Your task to perform on an android device: Go to Reddit.com Image 0: 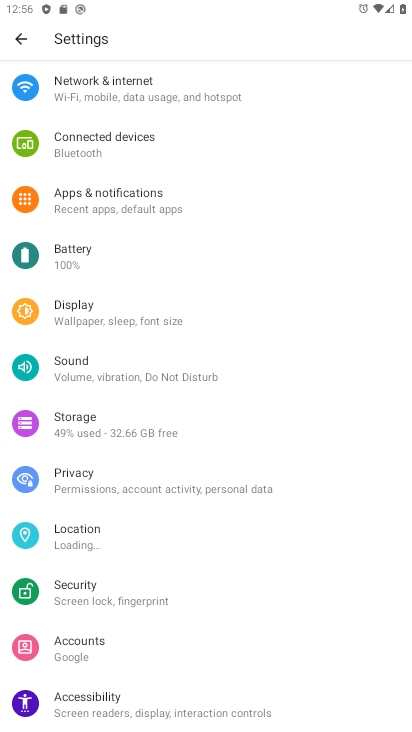
Step 0: press home button
Your task to perform on an android device: Go to Reddit.com Image 1: 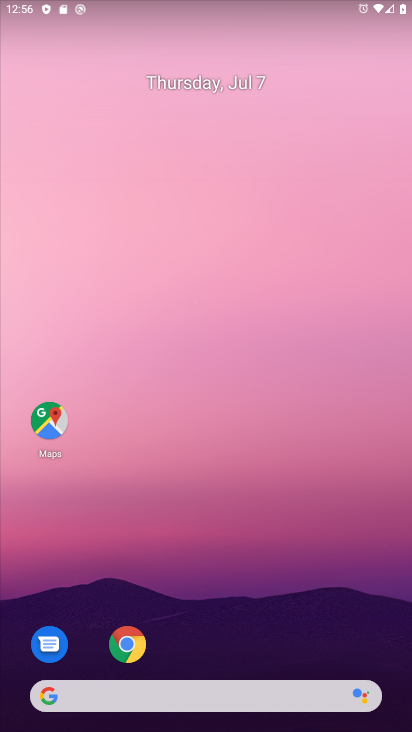
Step 1: click (112, 686)
Your task to perform on an android device: Go to Reddit.com Image 2: 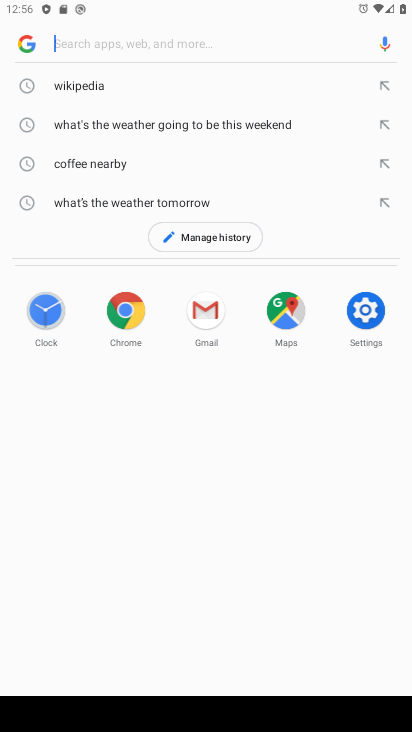
Step 2: type "Reddit.com"
Your task to perform on an android device: Go to Reddit.com Image 3: 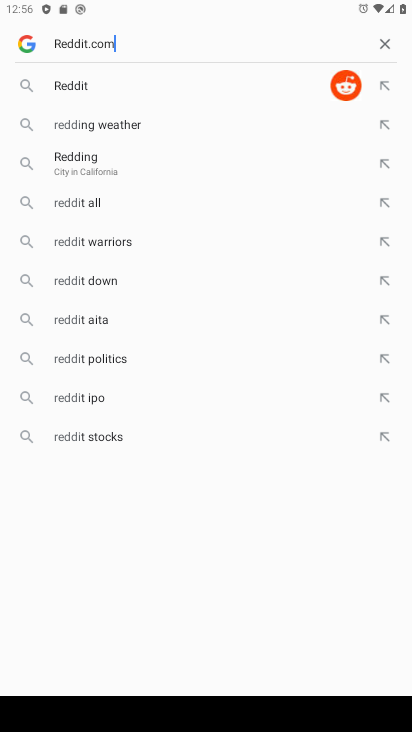
Step 3: type ""
Your task to perform on an android device: Go to Reddit.com Image 4: 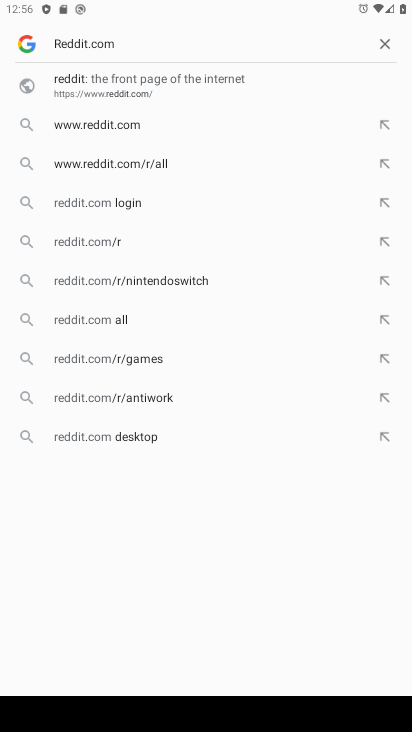
Step 4: type "  "
Your task to perform on an android device: Go to Reddit.com Image 5: 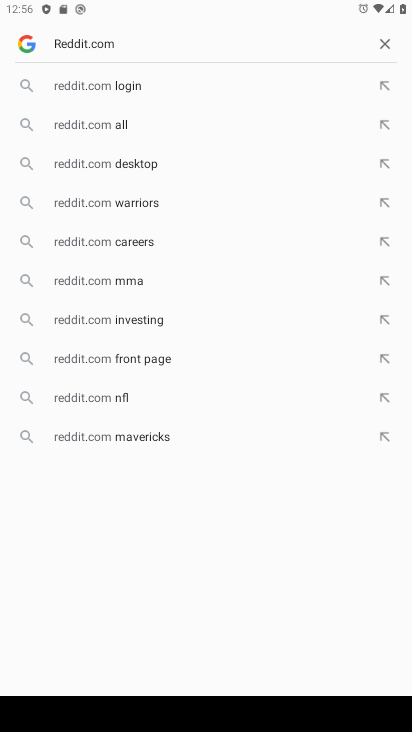
Step 5: type "  "
Your task to perform on an android device: Go to Reddit.com Image 6: 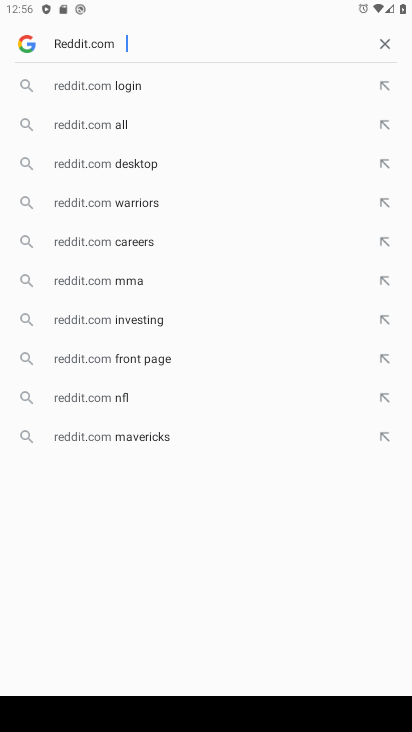
Step 6: type " "
Your task to perform on an android device: Go to Reddit.com Image 7: 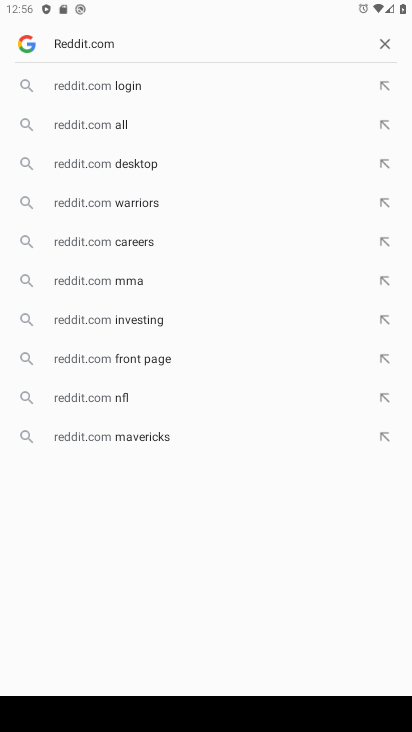
Step 7: type ""
Your task to perform on an android device: Go to Reddit.com Image 8: 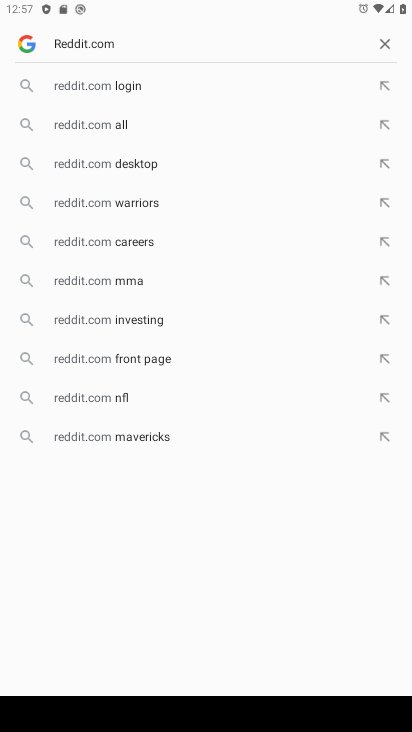
Step 8: type ""
Your task to perform on an android device: Go to Reddit.com Image 9: 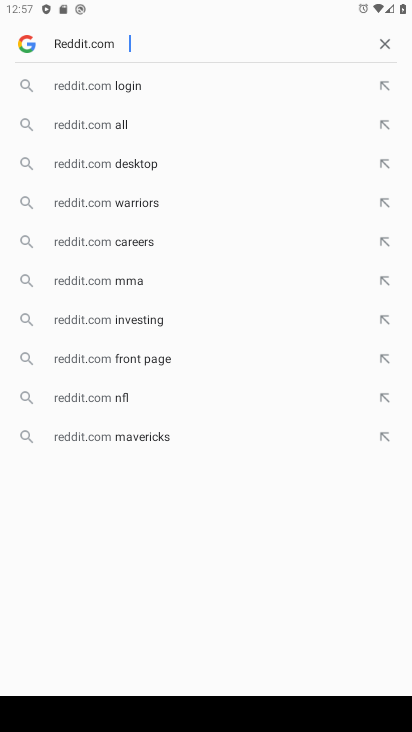
Step 9: type ""
Your task to perform on an android device: Go to Reddit.com Image 10: 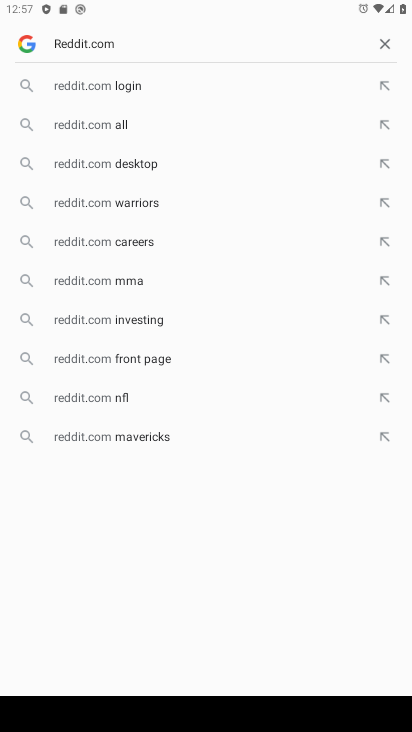
Step 10: click (301, 35)
Your task to perform on an android device: Go to Reddit.com Image 11: 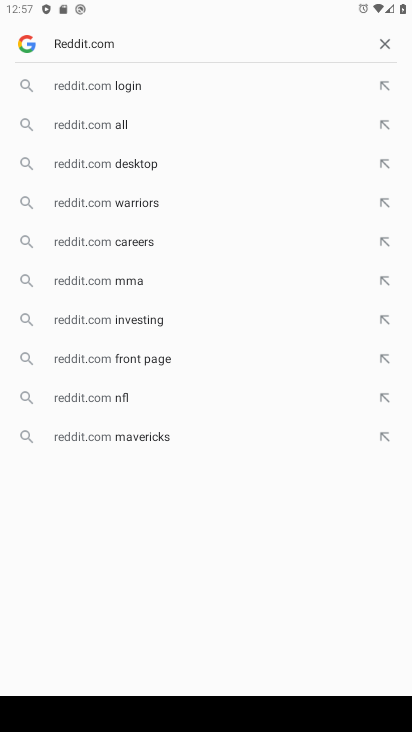
Step 11: click (301, 35)
Your task to perform on an android device: Go to Reddit.com Image 12: 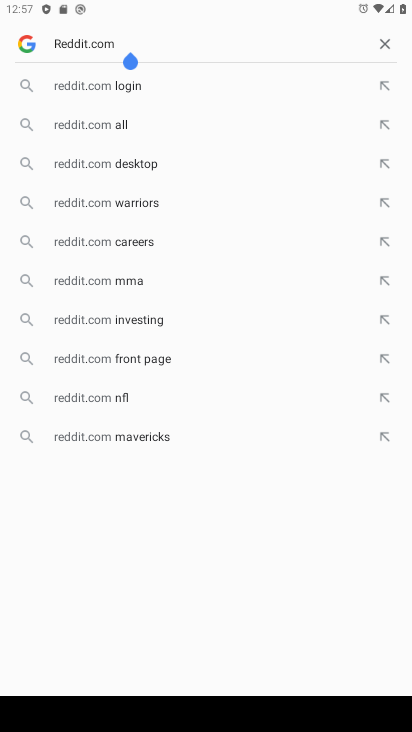
Step 12: type ""
Your task to perform on an android device: Go to Reddit.com Image 13: 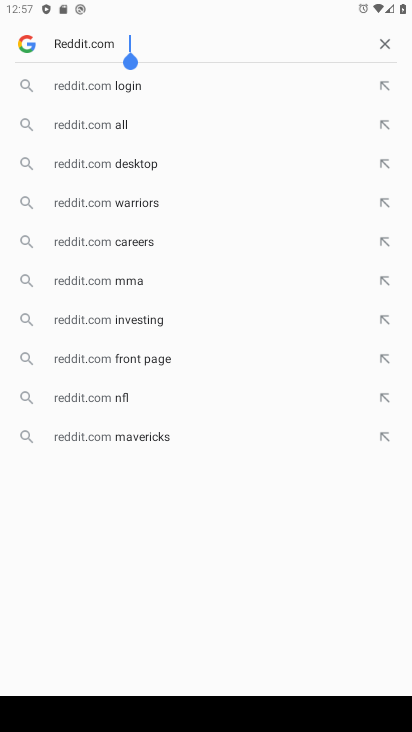
Step 13: type ""
Your task to perform on an android device: Go to Reddit.com Image 14: 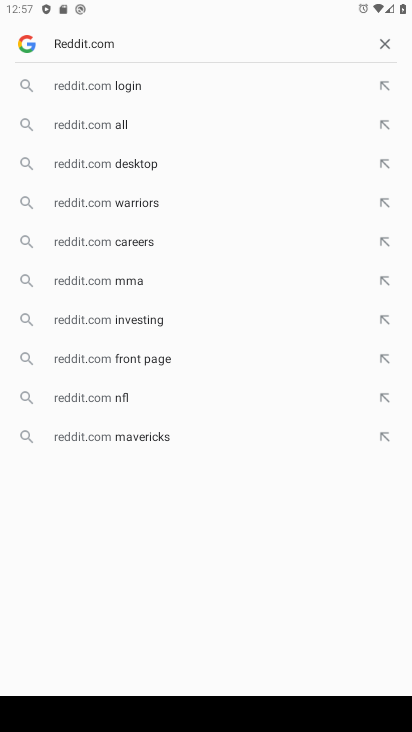
Step 14: type ""
Your task to perform on an android device: Go to Reddit.com Image 15: 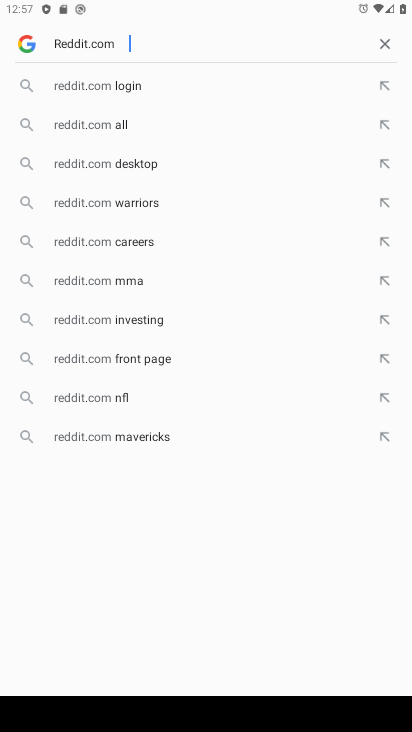
Step 15: type ""
Your task to perform on an android device: Go to Reddit.com Image 16: 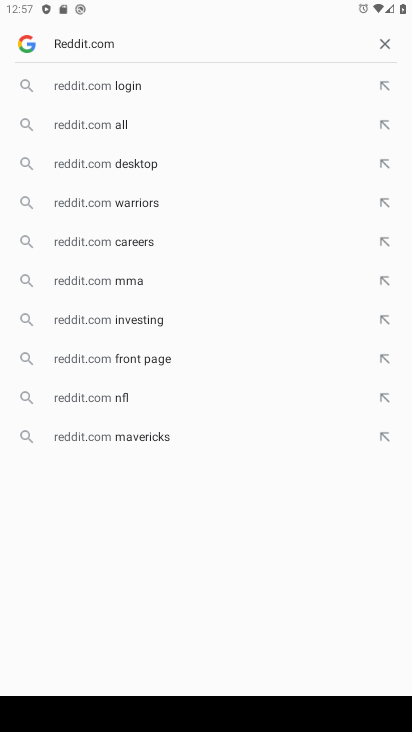
Step 16: type ""
Your task to perform on an android device: Go to Reddit.com Image 17: 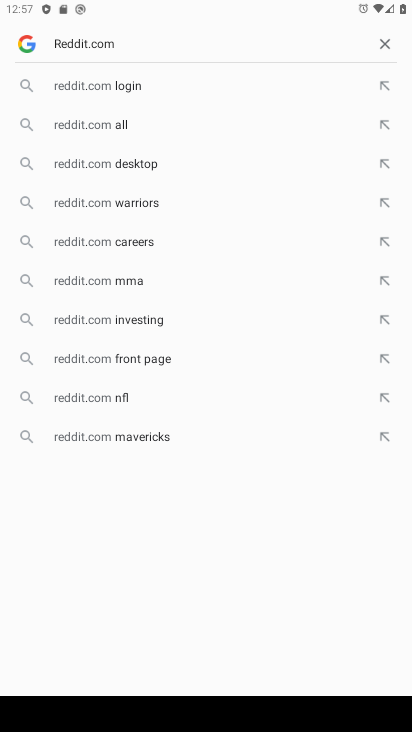
Step 17: type ""
Your task to perform on an android device: Go to Reddit.com Image 18: 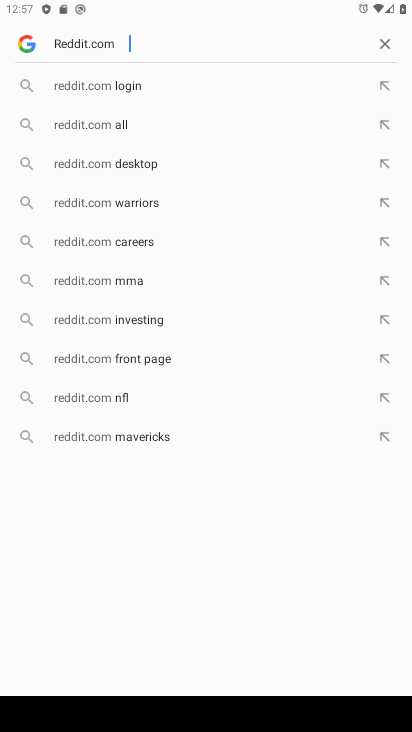
Step 18: type ""
Your task to perform on an android device: Go to Reddit.com Image 19: 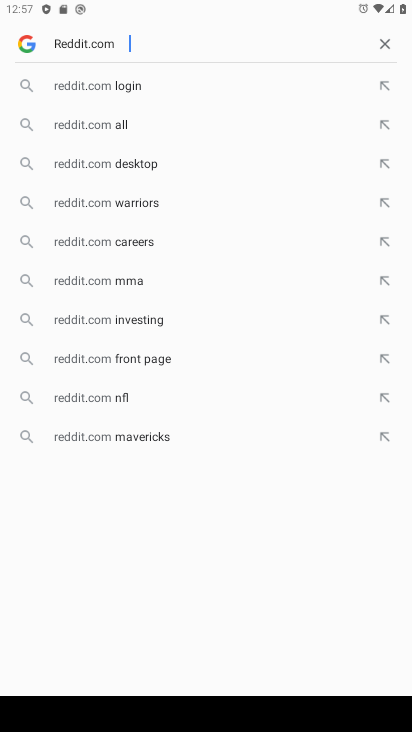
Step 19: type ""
Your task to perform on an android device: Go to Reddit.com Image 20: 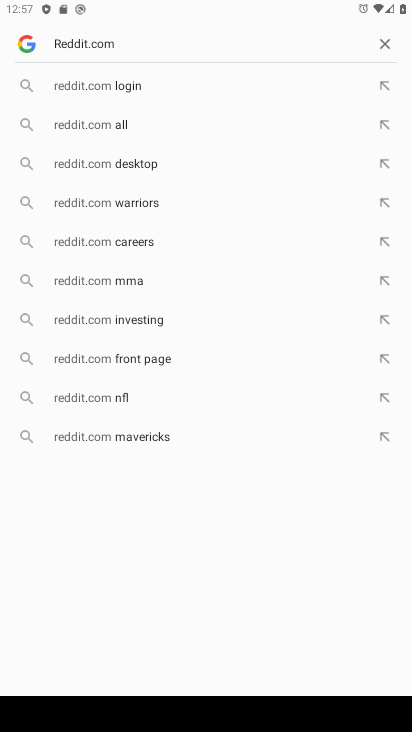
Step 20: type ""
Your task to perform on an android device: Go to Reddit.com Image 21: 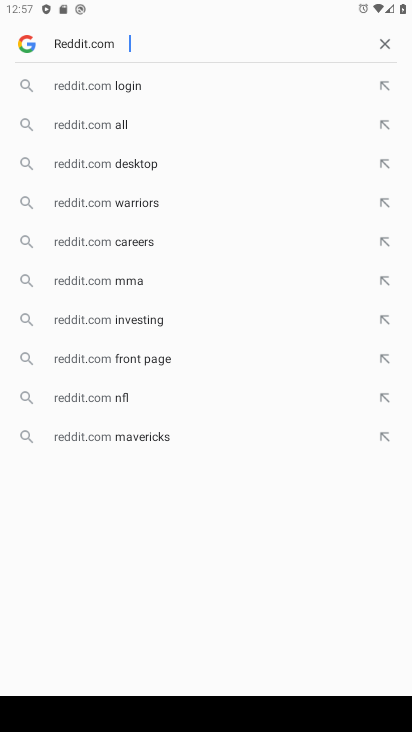
Step 21: type ""
Your task to perform on an android device: Go to Reddit.com Image 22: 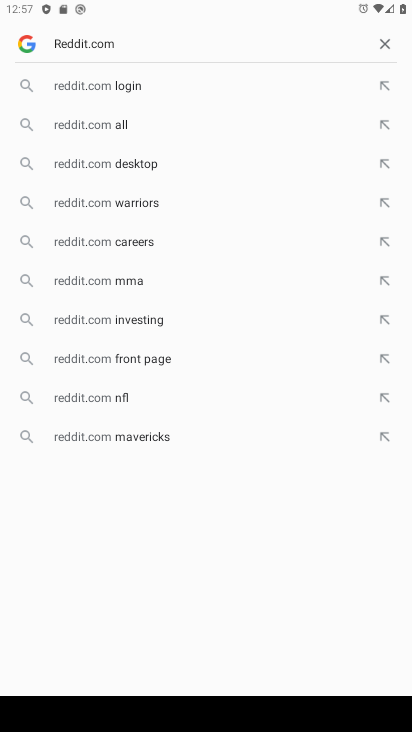
Step 22: type ""
Your task to perform on an android device: Go to Reddit.com Image 23: 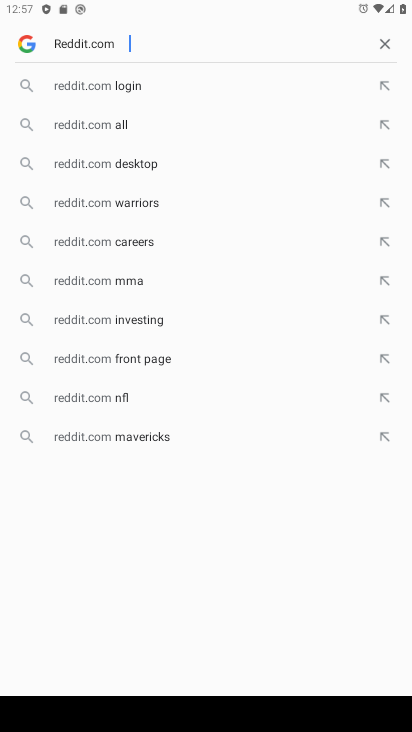
Step 23: type ""
Your task to perform on an android device: Go to Reddit.com Image 24: 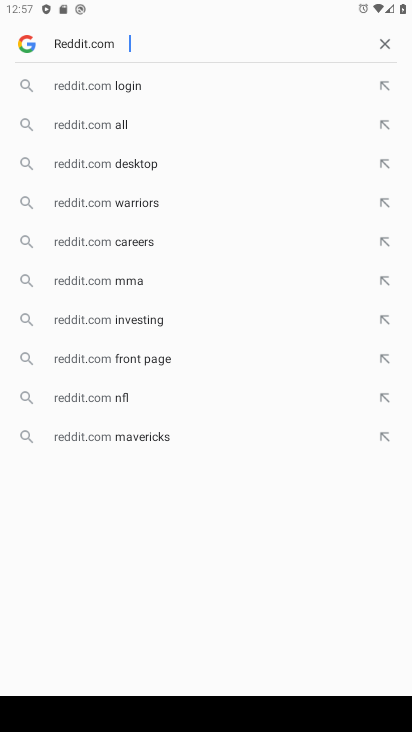
Step 24: task complete